Your task to perform on an android device: turn on data saver in the chrome app Image 0: 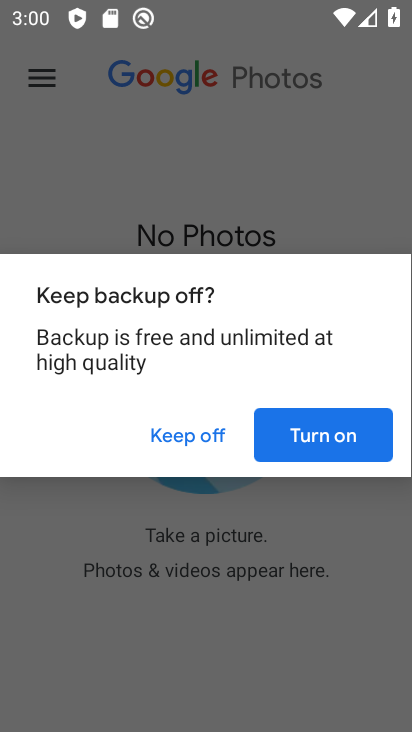
Step 0: press back button
Your task to perform on an android device: turn on data saver in the chrome app Image 1: 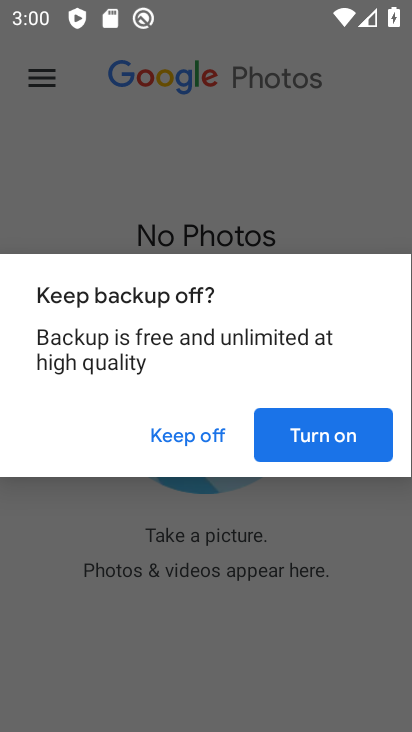
Step 1: press home button
Your task to perform on an android device: turn on data saver in the chrome app Image 2: 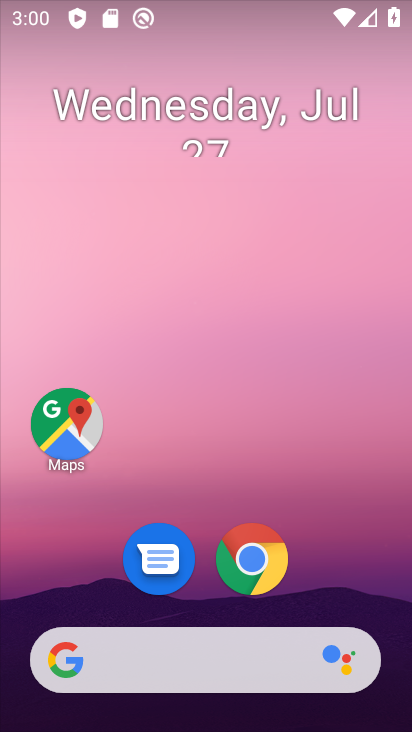
Step 2: click (235, 582)
Your task to perform on an android device: turn on data saver in the chrome app Image 3: 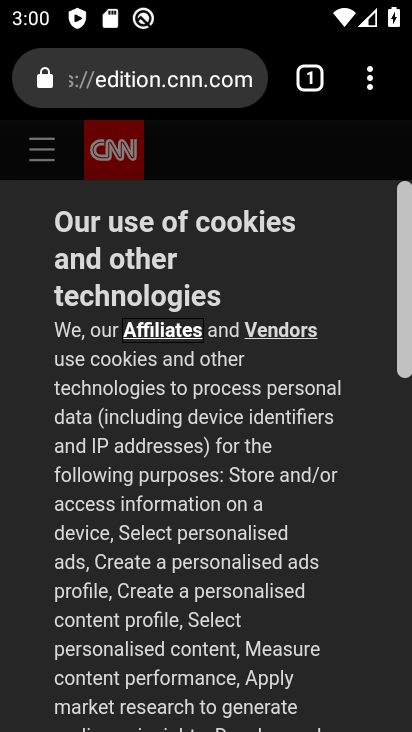
Step 3: drag from (369, 76) to (153, 608)
Your task to perform on an android device: turn on data saver in the chrome app Image 4: 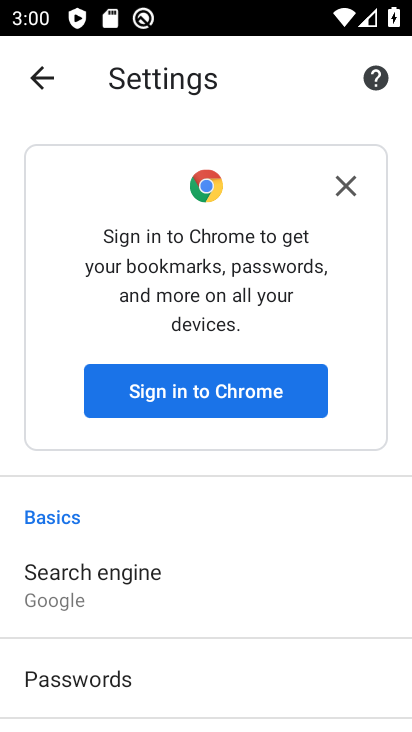
Step 4: drag from (111, 638) to (244, 55)
Your task to perform on an android device: turn on data saver in the chrome app Image 5: 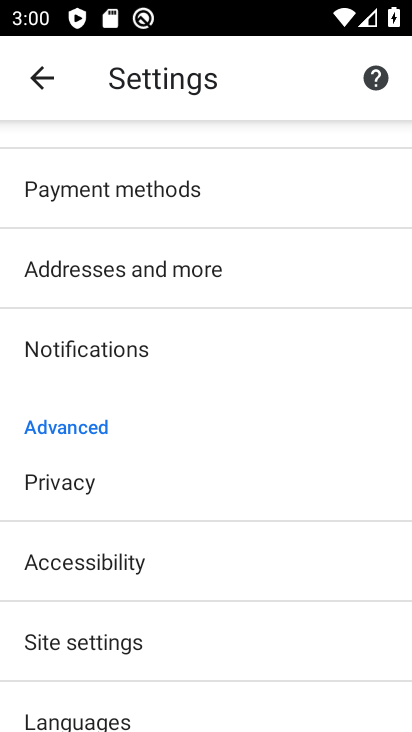
Step 5: drag from (161, 691) to (320, 137)
Your task to perform on an android device: turn on data saver in the chrome app Image 6: 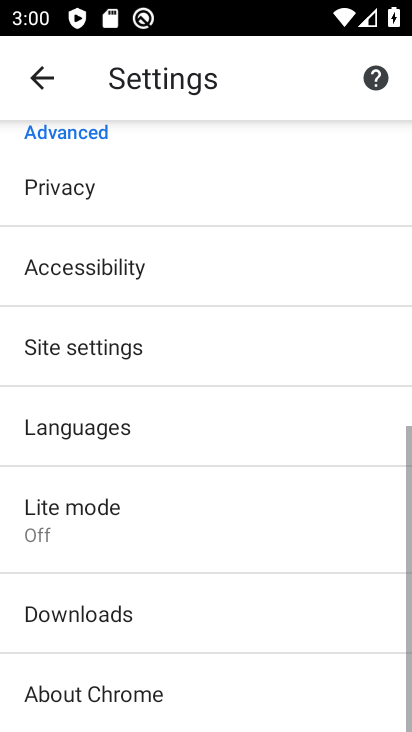
Step 6: click (150, 520)
Your task to perform on an android device: turn on data saver in the chrome app Image 7: 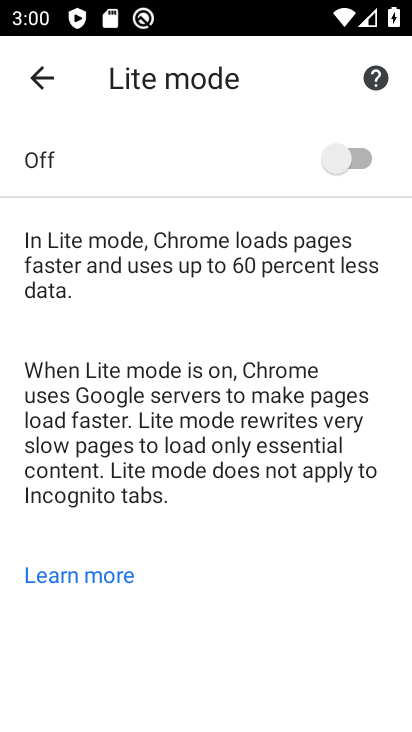
Step 7: click (339, 161)
Your task to perform on an android device: turn on data saver in the chrome app Image 8: 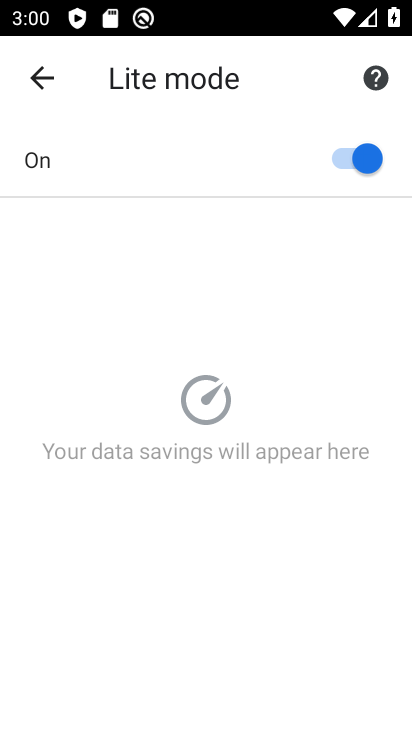
Step 8: task complete